Your task to perform on an android device: Go to display settings Image 0: 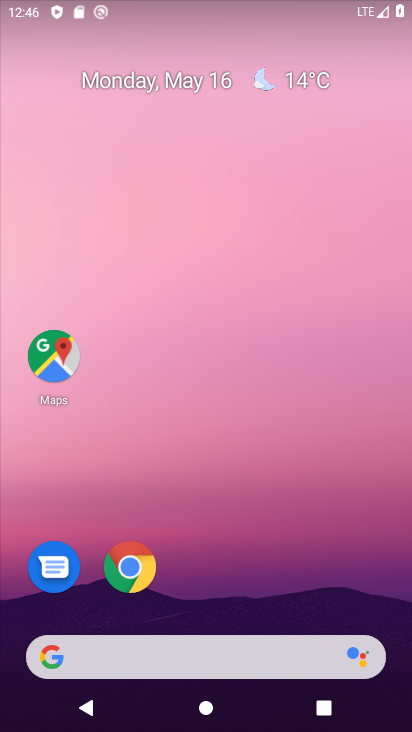
Step 0: drag from (226, 539) to (113, 45)
Your task to perform on an android device: Go to display settings Image 1: 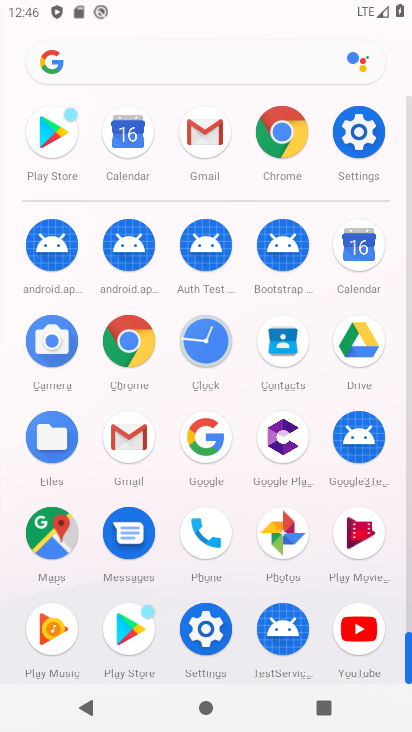
Step 1: click (354, 127)
Your task to perform on an android device: Go to display settings Image 2: 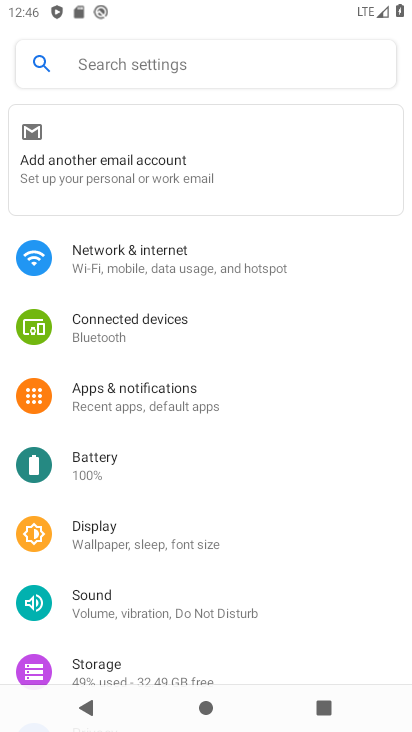
Step 2: click (83, 524)
Your task to perform on an android device: Go to display settings Image 3: 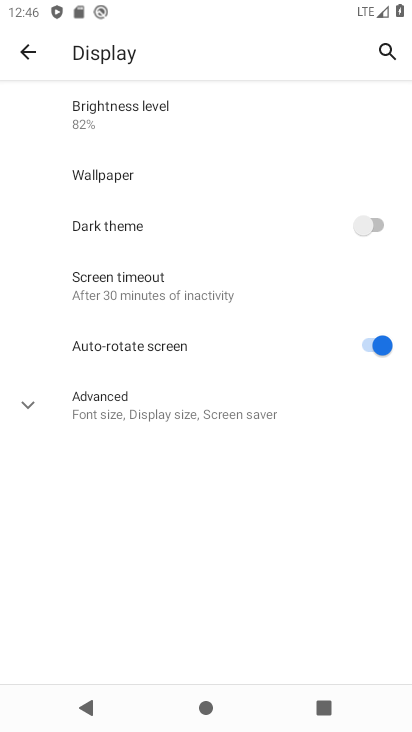
Step 3: task complete